Your task to perform on an android device: Open calendar and show me the third week of next month Image 0: 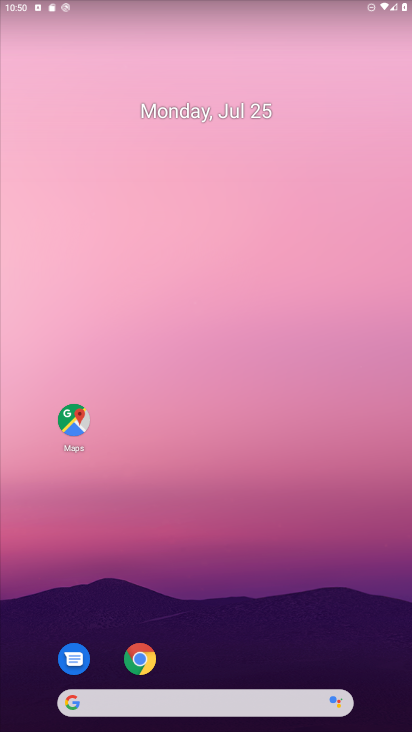
Step 0: drag from (238, 592) to (237, 231)
Your task to perform on an android device: Open calendar and show me the third week of next month Image 1: 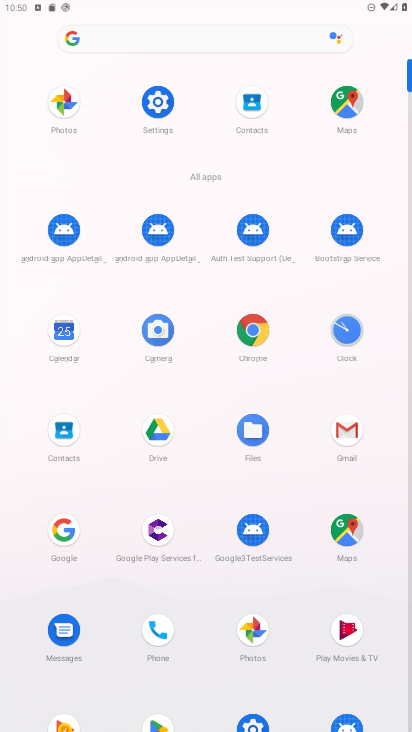
Step 1: click (69, 352)
Your task to perform on an android device: Open calendar and show me the third week of next month Image 2: 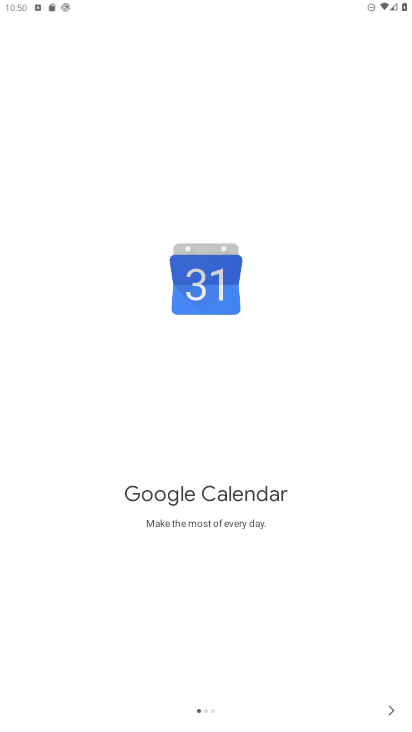
Step 2: click (384, 708)
Your task to perform on an android device: Open calendar and show me the third week of next month Image 3: 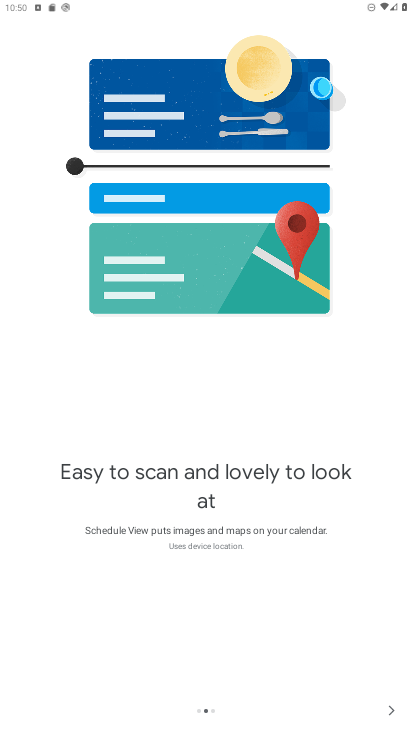
Step 3: click (385, 706)
Your task to perform on an android device: Open calendar and show me the third week of next month Image 4: 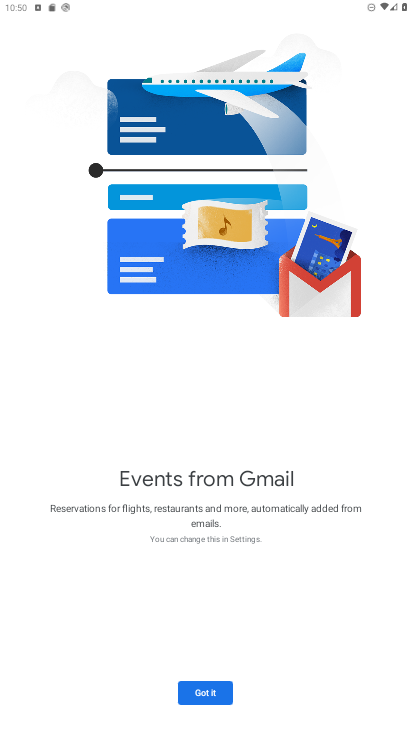
Step 4: click (208, 679)
Your task to perform on an android device: Open calendar and show me the third week of next month Image 5: 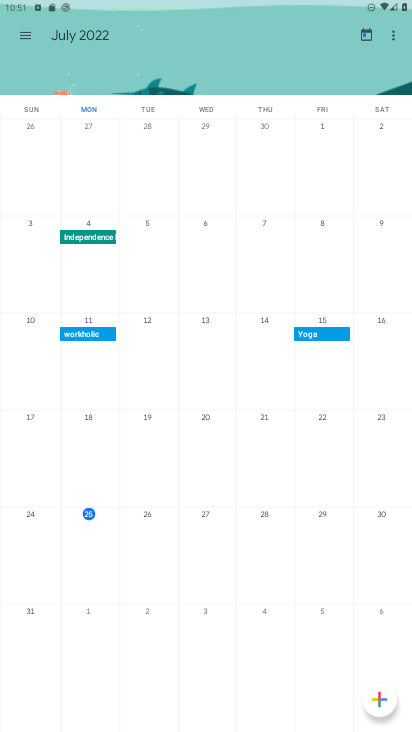
Step 5: drag from (329, 405) to (101, 391)
Your task to perform on an android device: Open calendar and show me the third week of next month Image 6: 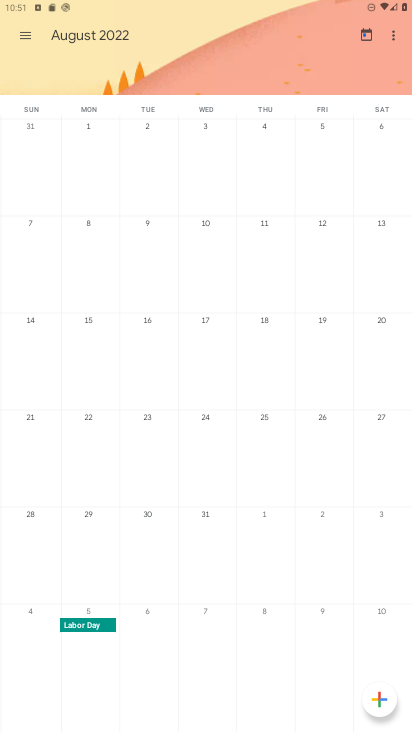
Step 6: click (16, 315)
Your task to perform on an android device: Open calendar and show me the third week of next month Image 7: 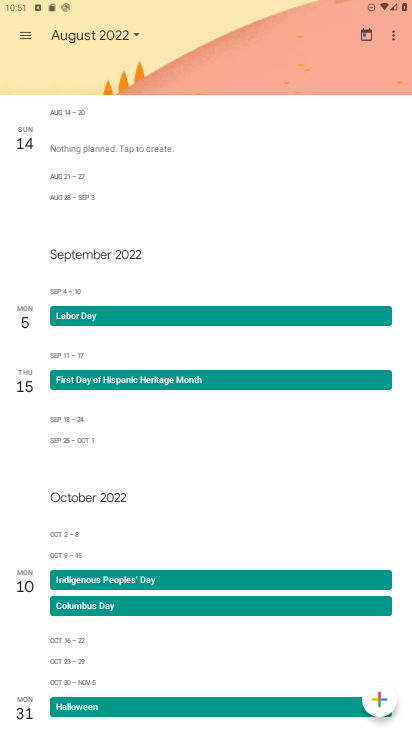
Step 7: click (26, 36)
Your task to perform on an android device: Open calendar and show me the third week of next month Image 8: 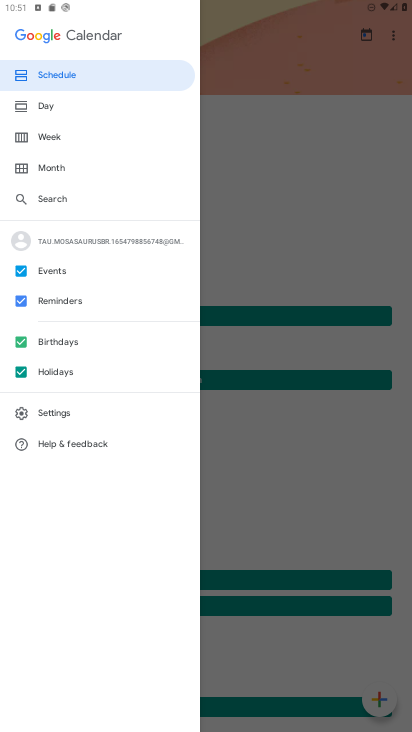
Step 8: click (274, 210)
Your task to perform on an android device: Open calendar and show me the third week of next month Image 9: 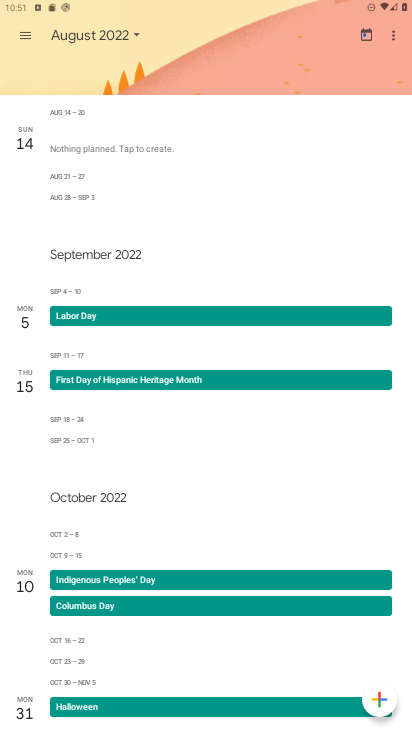
Step 9: task complete